Your task to perform on an android device: set the timer Image 0: 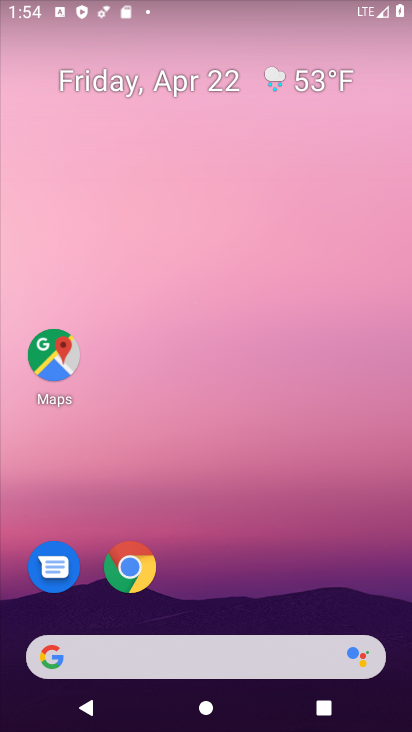
Step 0: drag from (369, 605) to (288, 120)
Your task to perform on an android device: set the timer Image 1: 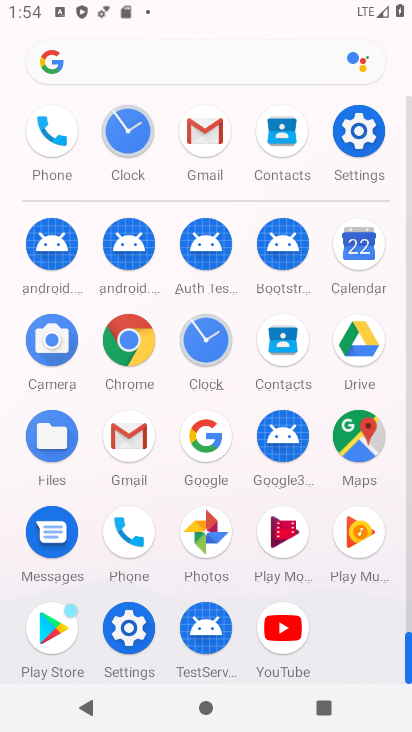
Step 1: click (204, 343)
Your task to perform on an android device: set the timer Image 2: 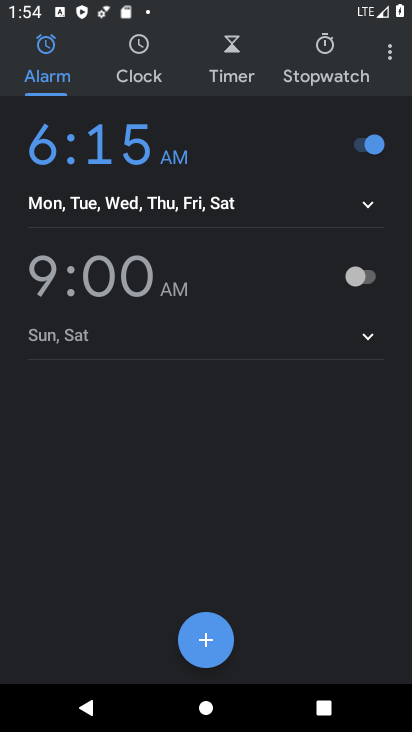
Step 2: click (224, 62)
Your task to perform on an android device: set the timer Image 3: 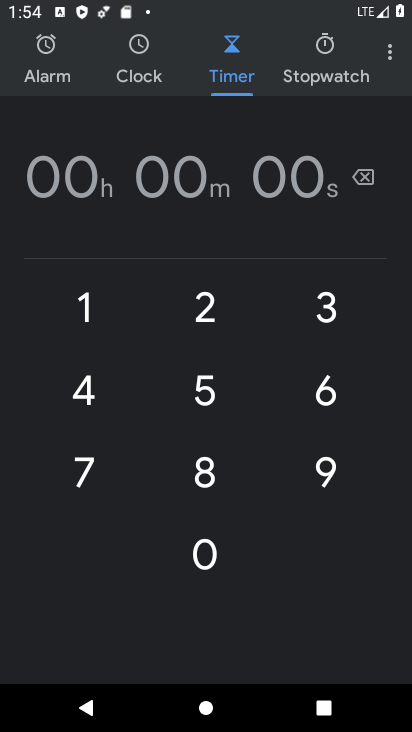
Step 3: click (80, 302)
Your task to perform on an android device: set the timer Image 4: 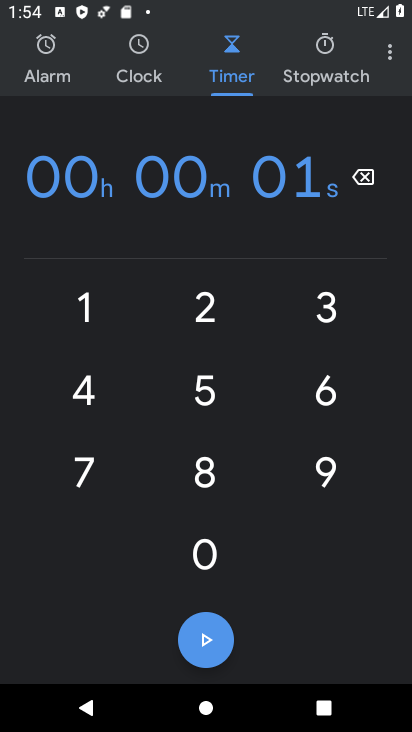
Step 4: click (324, 304)
Your task to perform on an android device: set the timer Image 5: 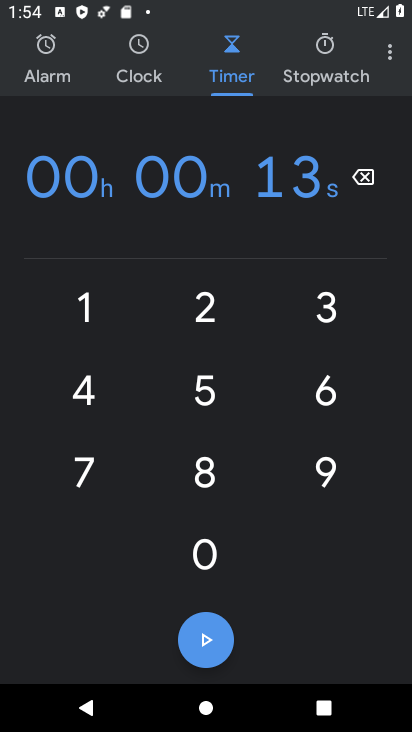
Step 5: click (212, 560)
Your task to perform on an android device: set the timer Image 6: 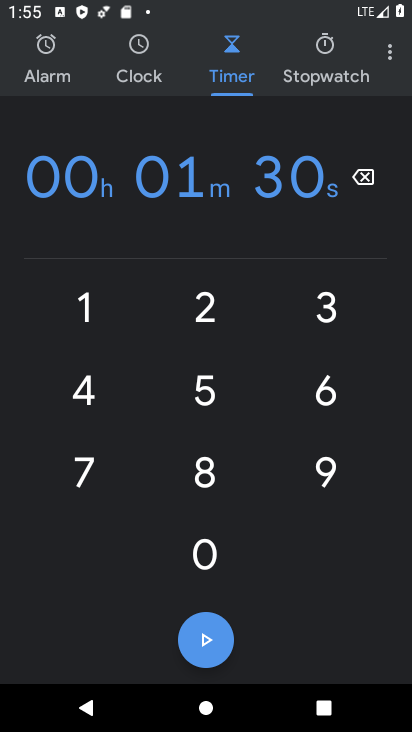
Step 6: click (212, 560)
Your task to perform on an android device: set the timer Image 7: 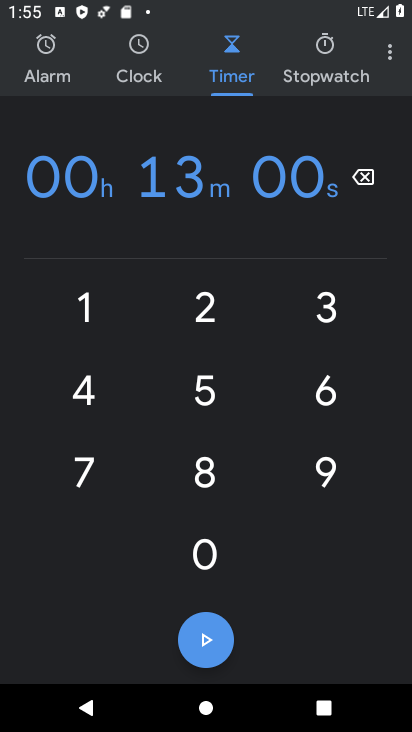
Step 7: click (212, 560)
Your task to perform on an android device: set the timer Image 8: 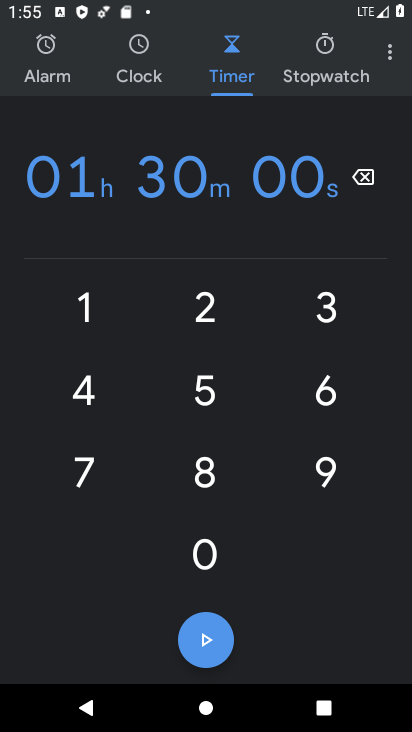
Step 8: task complete